Your task to perform on an android device: turn on notifications settings in the gmail app Image 0: 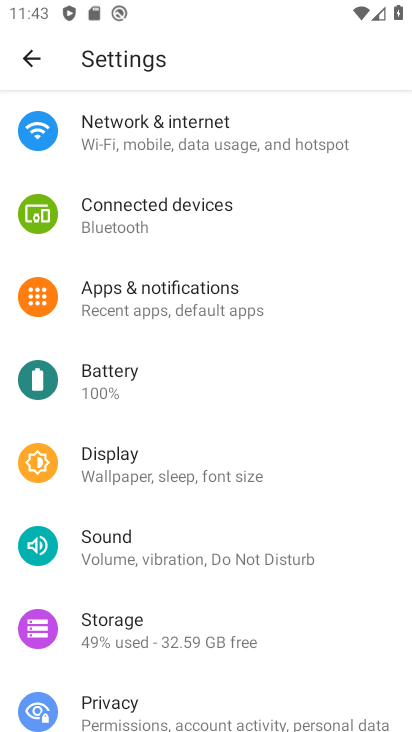
Step 0: press home button
Your task to perform on an android device: turn on notifications settings in the gmail app Image 1: 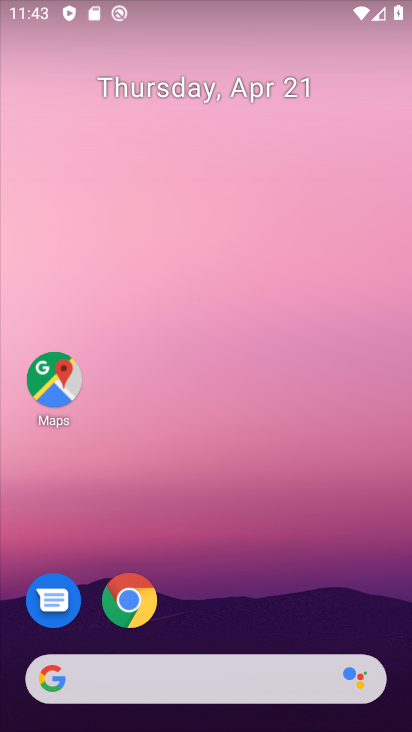
Step 1: drag from (215, 447) to (223, 150)
Your task to perform on an android device: turn on notifications settings in the gmail app Image 2: 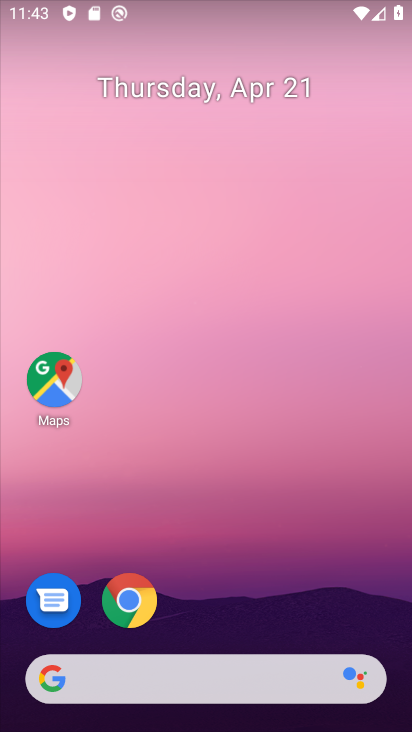
Step 2: drag from (205, 612) to (227, 0)
Your task to perform on an android device: turn on notifications settings in the gmail app Image 3: 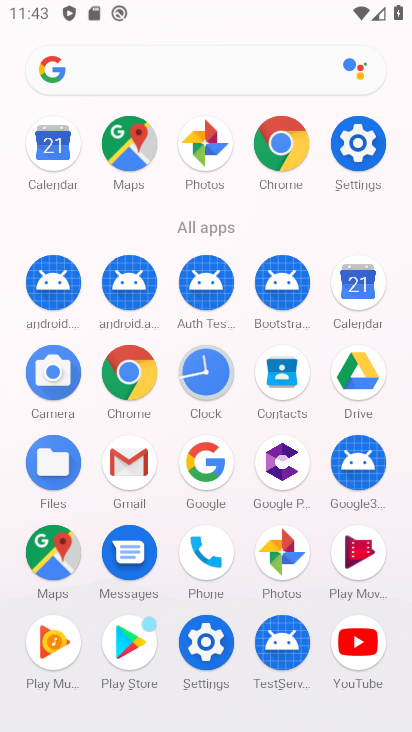
Step 3: click (135, 476)
Your task to perform on an android device: turn on notifications settings in the gmail app Image 4: 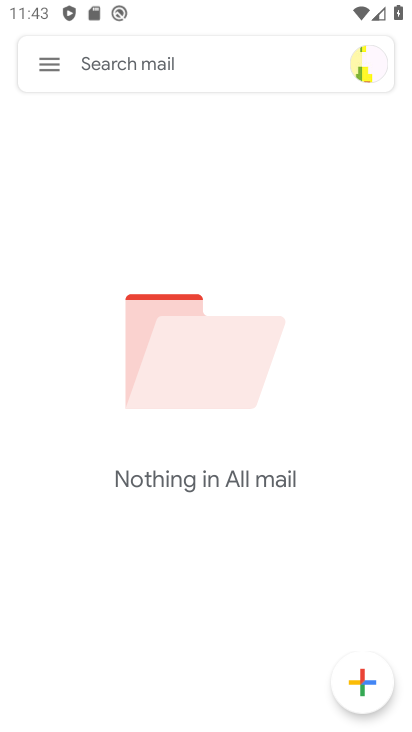
Step 4: click (34, 64)
Your task to perform on an android device: turn on notifications settings in the gmail app Image 5: 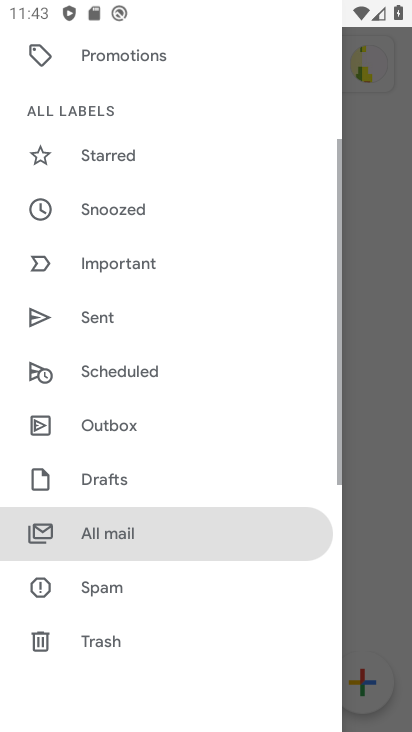
Step 5: drag from (96, 576) to (179, 221)
Your task to perform on an android device: turn on notifications settings in the gmail app Image 6: 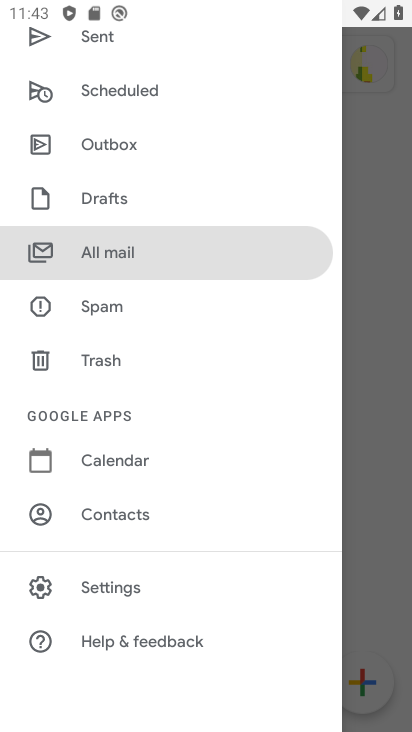
Step 6: click (113, 587)
Your task to perform on an android device: turn on notifications settings in the gmail app Image 7: 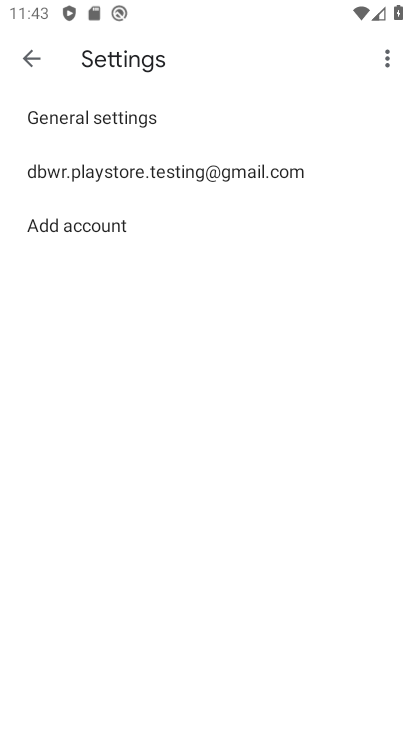
Step 7: click (109, 115)
Your task to perform on an android device: turn on notifications settings in the gmail app Image 8: 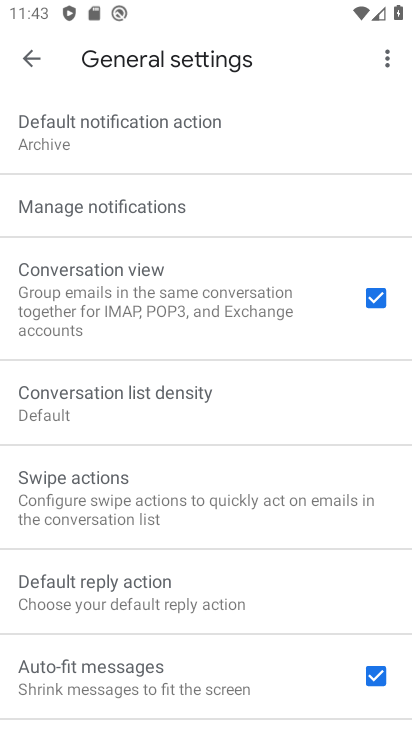
Step 8: click (115, 207)
Your task to perform on an android device: turn on notifications settings in the gmail app Image 9: 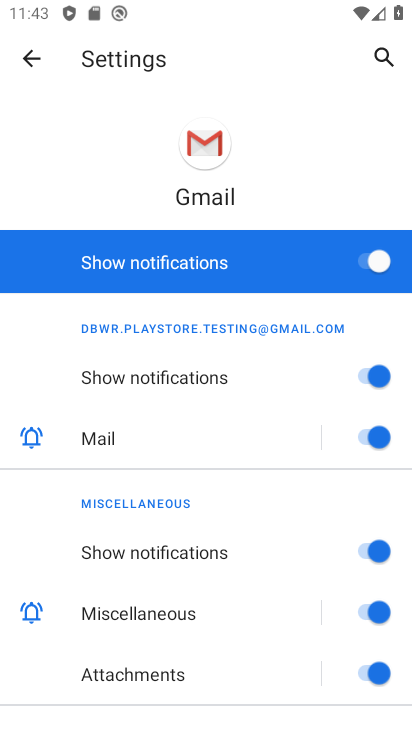
Step 9: task complete